Your task to perform on an android device: Open CNN.com Image 0: 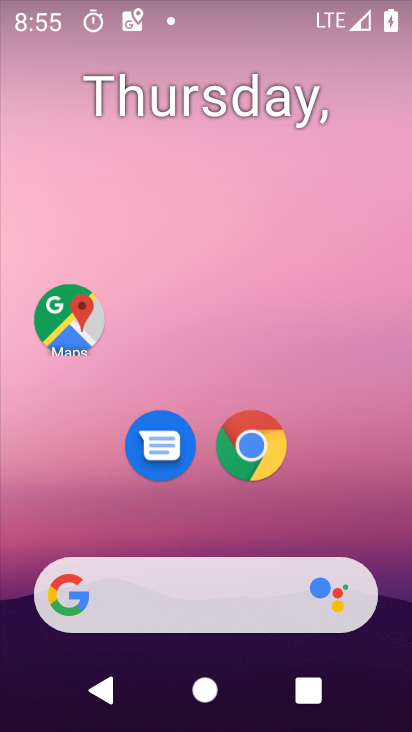
Step 0: drag from (207, 511) to (240, 171)
Your task to perform on an android device: Open CNN.com Image 1: 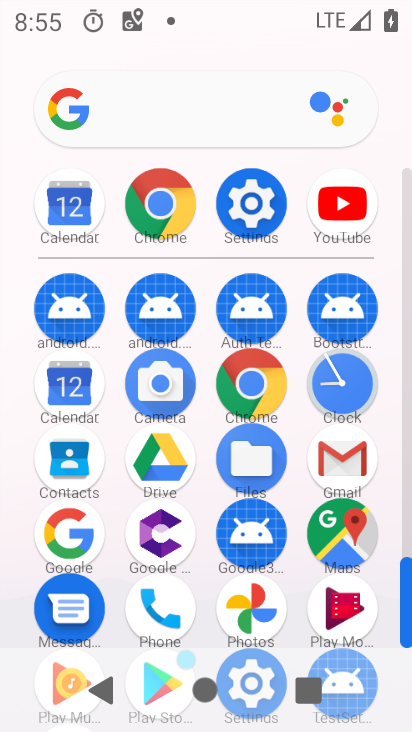
Step 1: drag from (203, 613) to (203, 372)
Your task to perform on an android device: Open CNN.com Image 2: 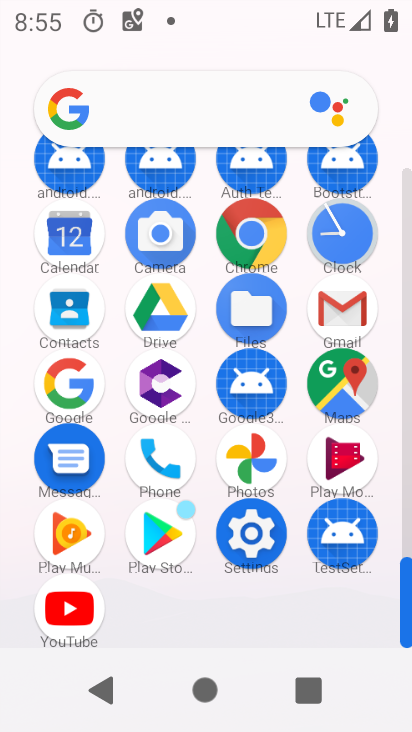
Step 2: click (173, 119)
Your task to perform on an android device: Open CNN.com Image 3: 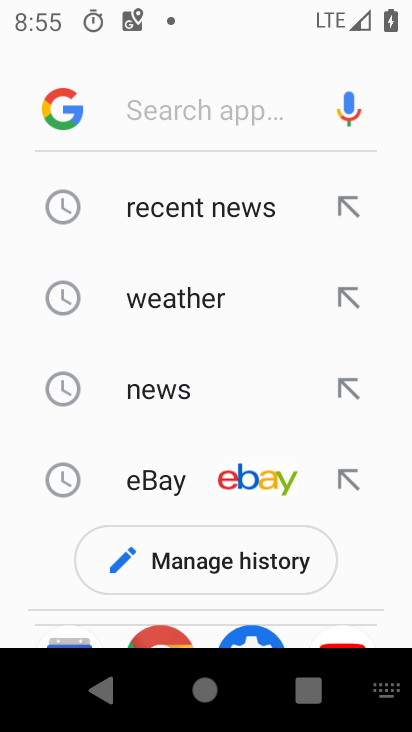
Step 3: drag from (243, 446) to (189, 134)
Your task to perform on an android device: Open CNN.com Image 4: 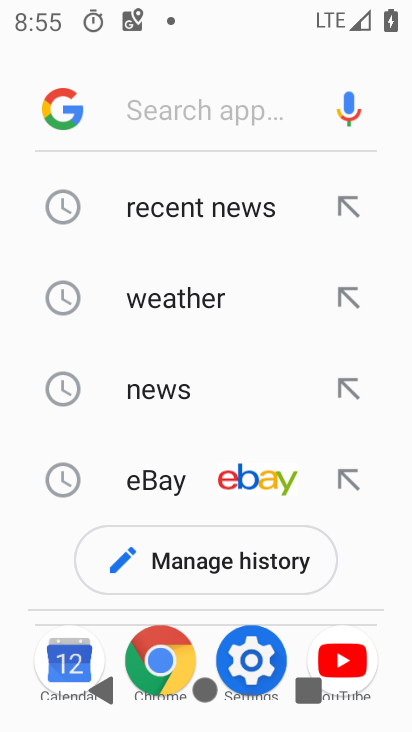
Step 4: click (191, 105)
Your task to perform on an android device: Open CNN.com Image 5: 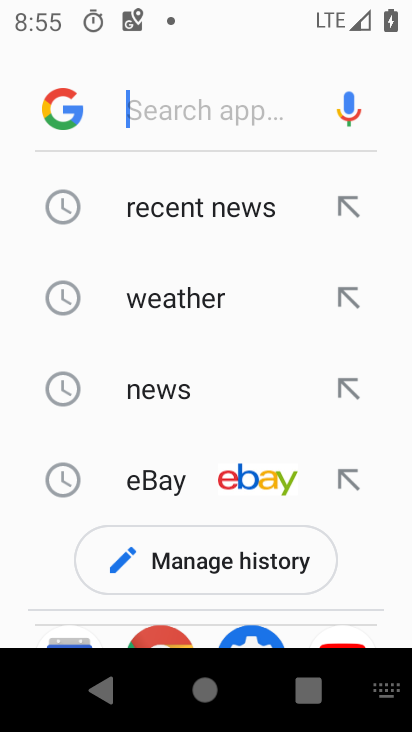
Step 5: type "cnn"
Your task to perform on an android device: Open CNN.com Image 6: 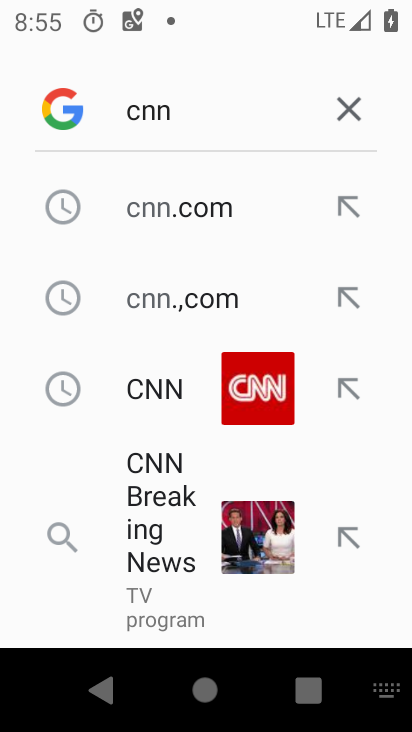
Step 6: click (218, 225)
Your task to perform on an android device: Open CNN.com Image 7: 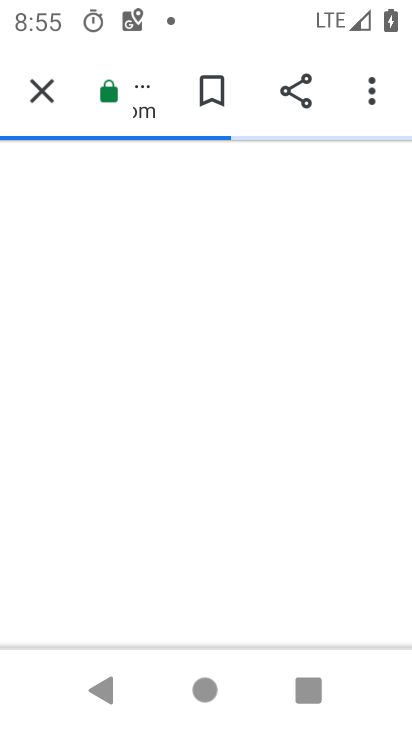
Step 7: click (176, 217)
Your task to perform on an android device: Open CNN.com Image 8: 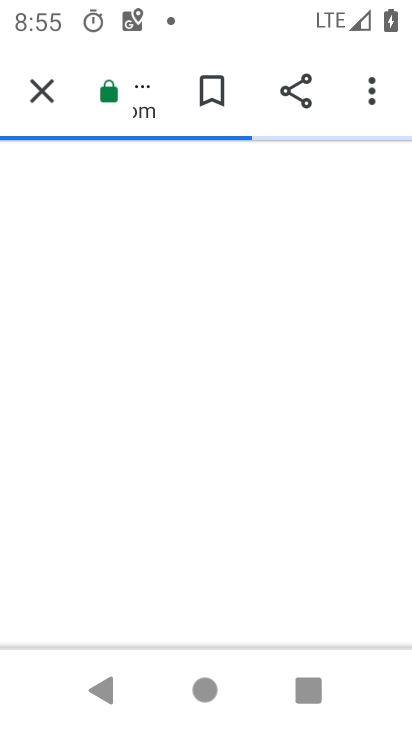
Step 8: task complete